Your task to perform on an android device: Open calendar and show me the second week of next month Image 0: 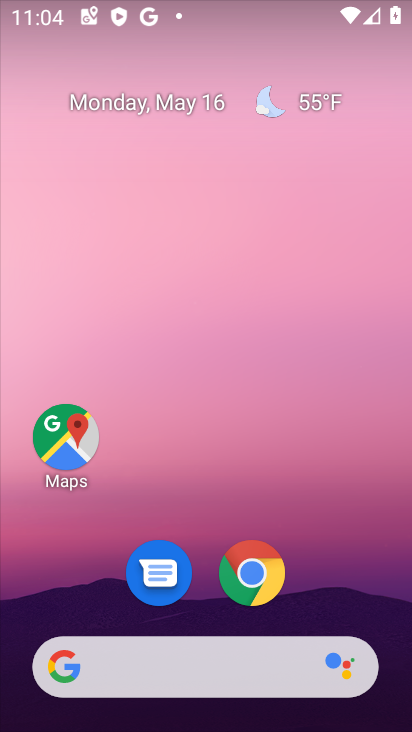
Step 0: drag from (345, 610) to (287, 256)
Your task to perform on an android device: Open calendar and show me the second week of next month Image 1: 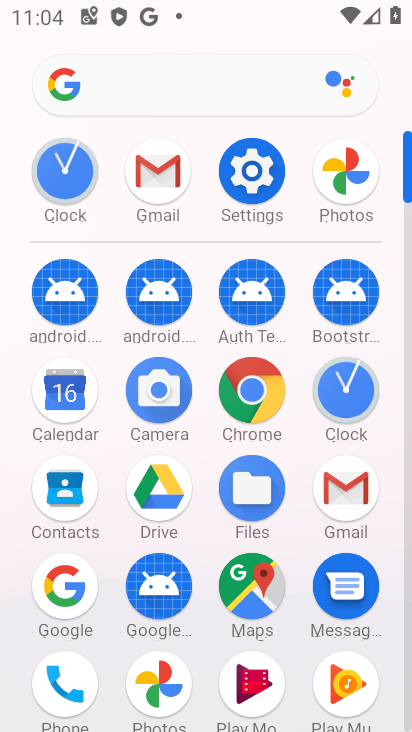
Step 1: click (82, 366)
Your task to perform on an android device: Open calendar and show me the second week of next month Image 2: 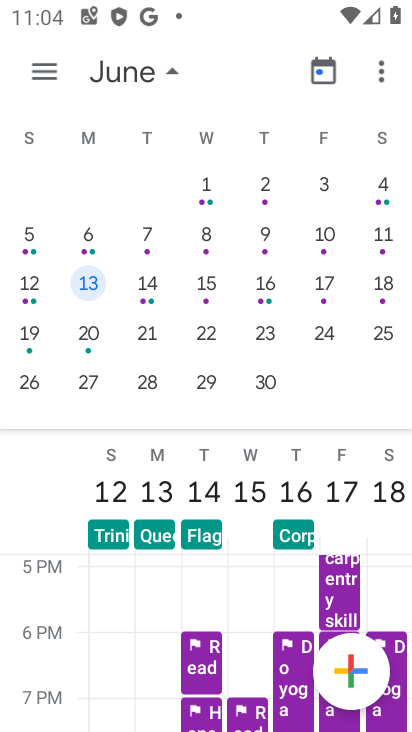
Step 2: click (89, 278)
Your task to perform on an android device: Open calendar and show me the second week of next month Image 3: 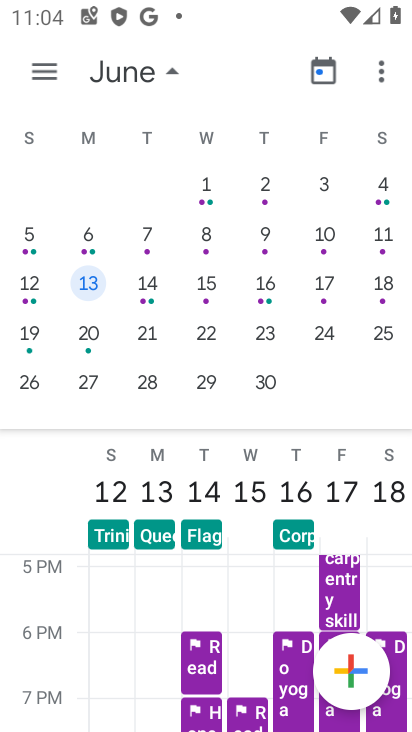
Step 3: task complete